Your task to perform on an android device: add a contact Image 0: 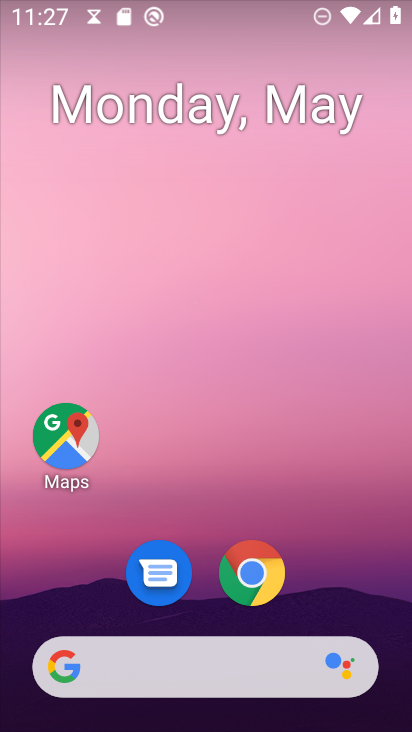
Step 0: drag from (360, 590) to (272, 72)
Your task to perform on an android device: add a contact Image 1: 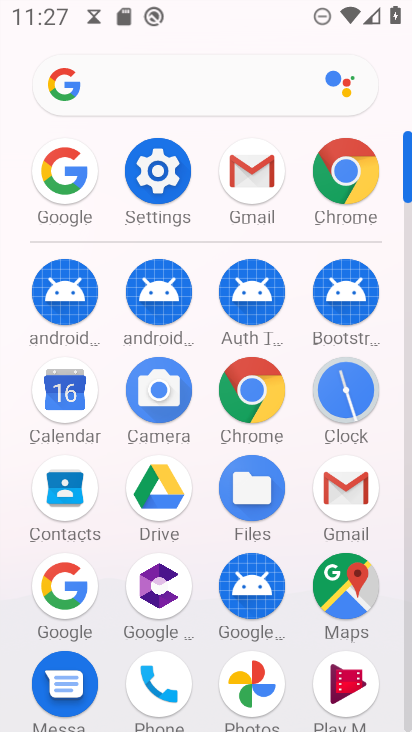
Step 1: drag from (210, 547) to (215, 233)
Your task to perform on an android device: add a contact Image 2: 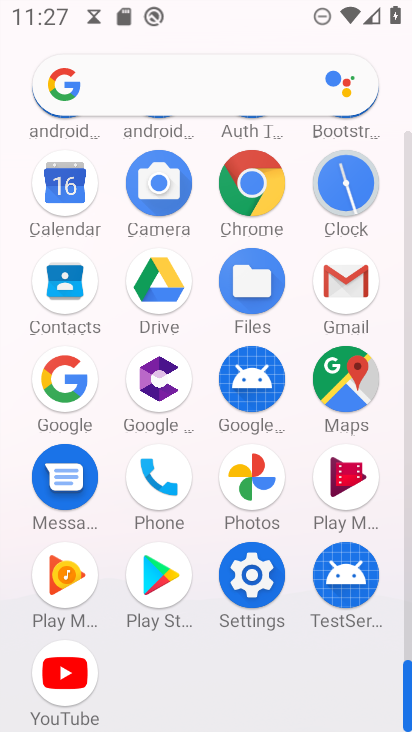
Step 2: click (68, 288)
Your task to perform on an android device: add a contact Image 3: 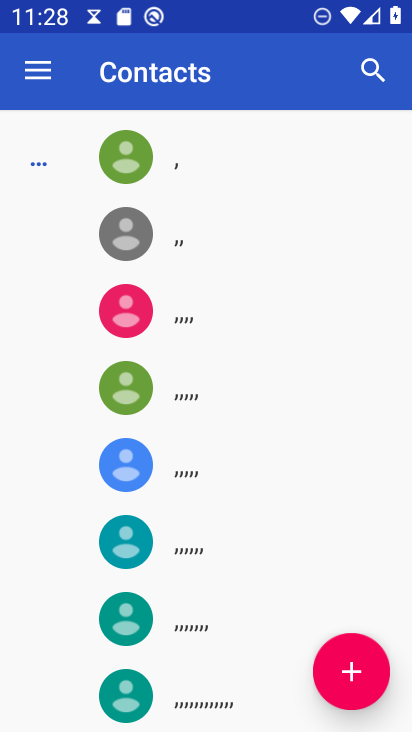
Step 3: click (350, 676)
Your task to perform on an android device: add a contact Image 4: 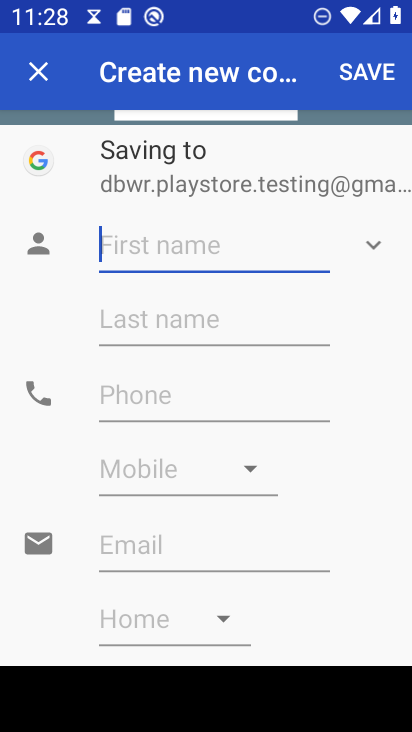
Step 4: type "fgsf"
Your task to perform on an android device: add a contact Image 5: 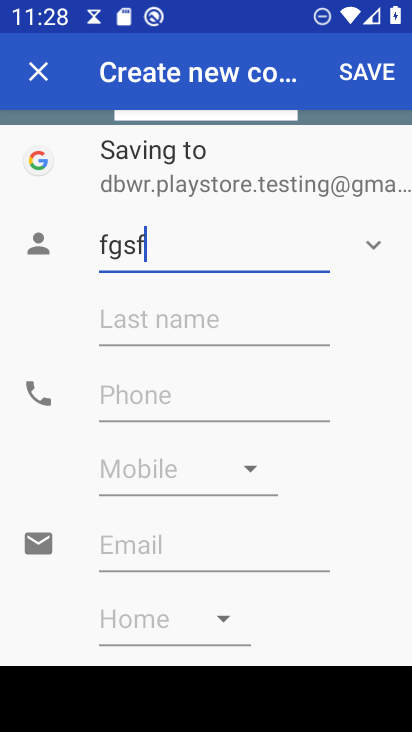
Step 5: type ""
Your task to perform on an android device: add a contact Image 6: 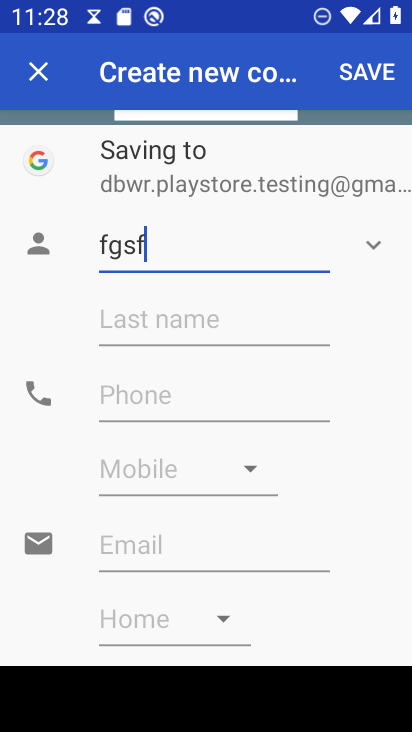
Step 6: click (244, 317)
Your task to perform on an android device: add a contact Image 7: 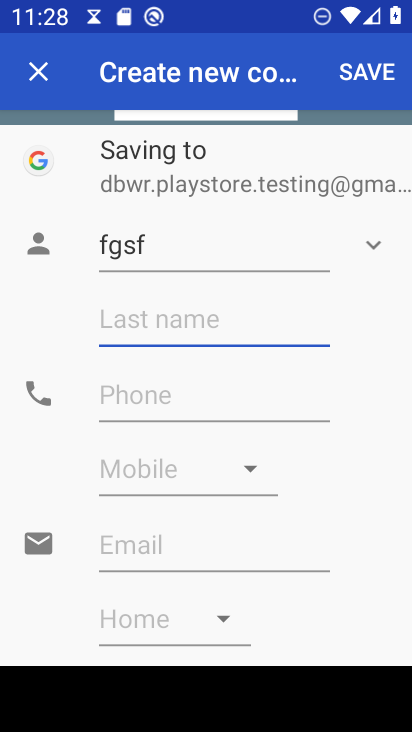
Step 7: type "fgsdf"
Your task to perform on an android device: add a contact Image 8: 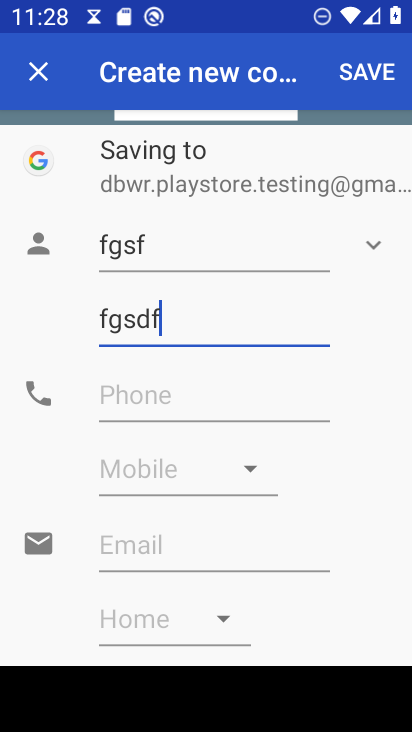
Step 8: type ""
Your task to perform on an android device: add a contact Image 9: 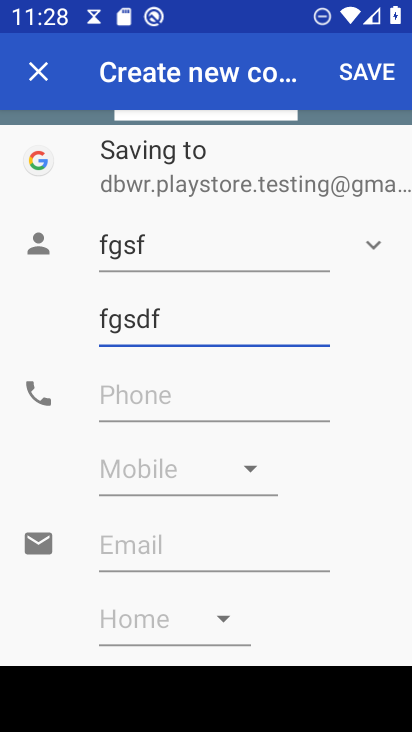
Step 9: click (231, 404)
Your task to perform on an android device: add a contact Image 10: 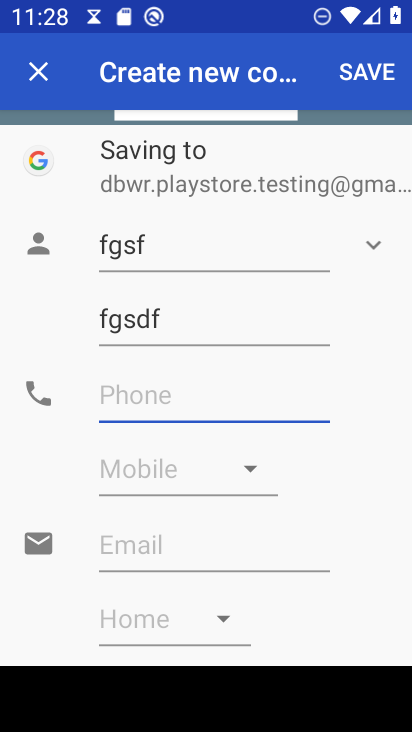
Step 10: type "452456235"
Your task to perform on an android device: add a contact Image 11: 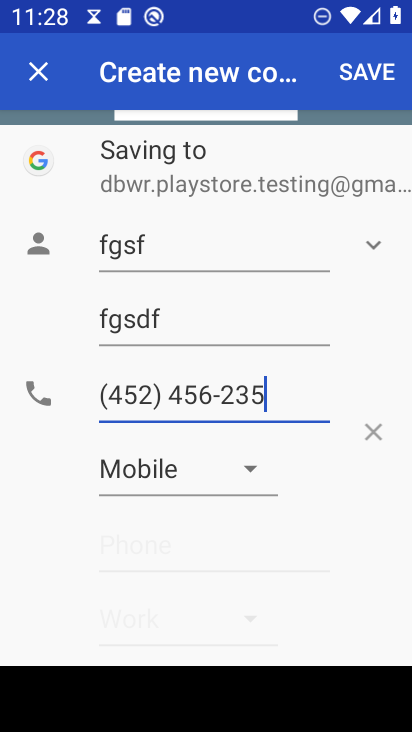
Step 11: type ""
Your task to perform on an android device: add a contact Image 12: 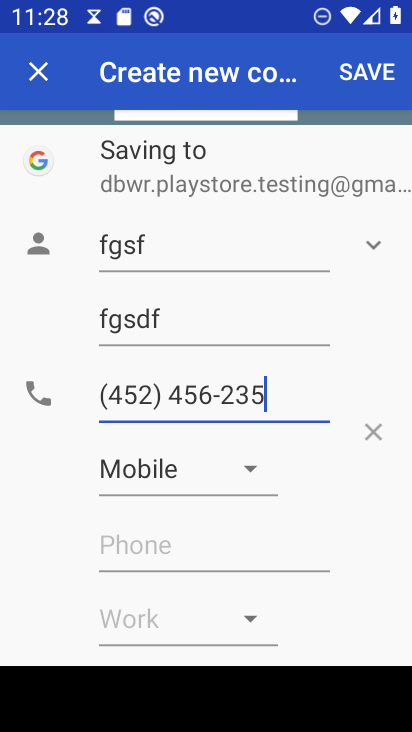
Step 12: click (357, 64)
Your task to perform on an android device: add a contact Image 13: 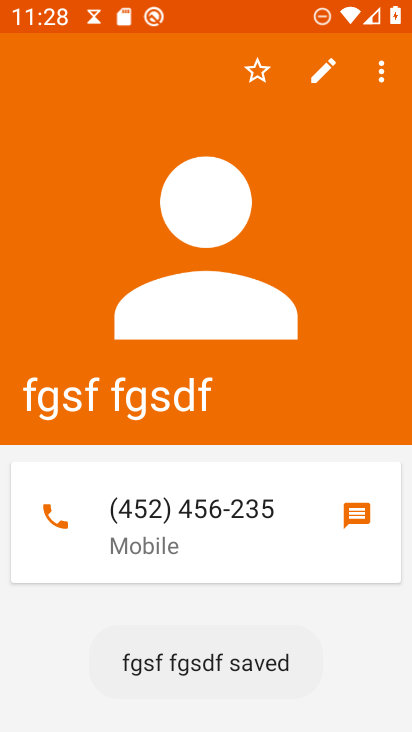
Step 13: task complete